Your task to perform on an android device: View the shopping cart on amazon.com. Search for "bose quietcomfort 35" on amazon.com, select the first entry, and add it to the cart. Image 0: 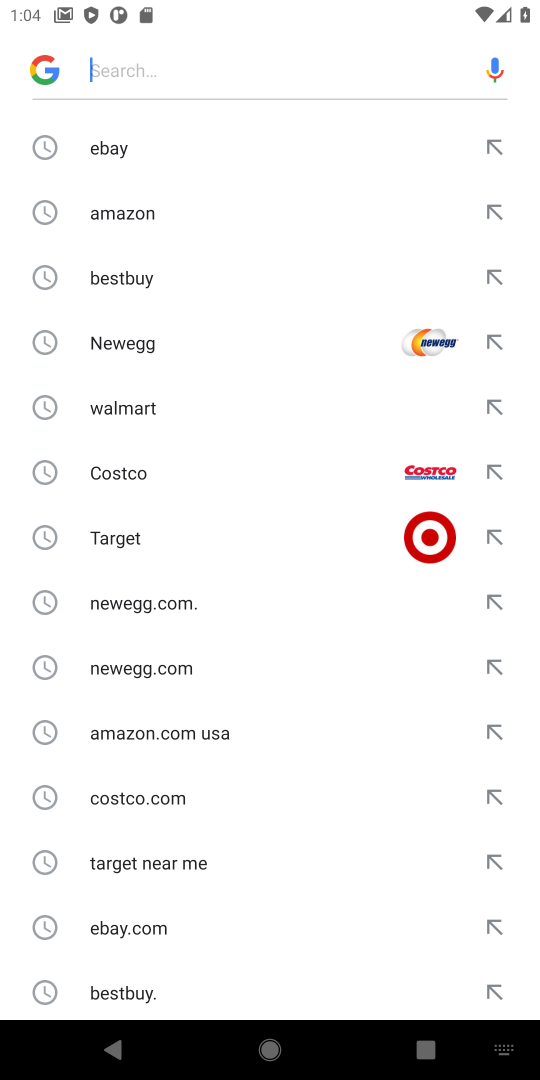
Step 0: click (91, 68)
Your task to perform on an android device: View the shopping cart on amazon.com. Search for "bose quietcomfort 35" on amazon.com, select the first entry, and add it to the cart. Image 1: 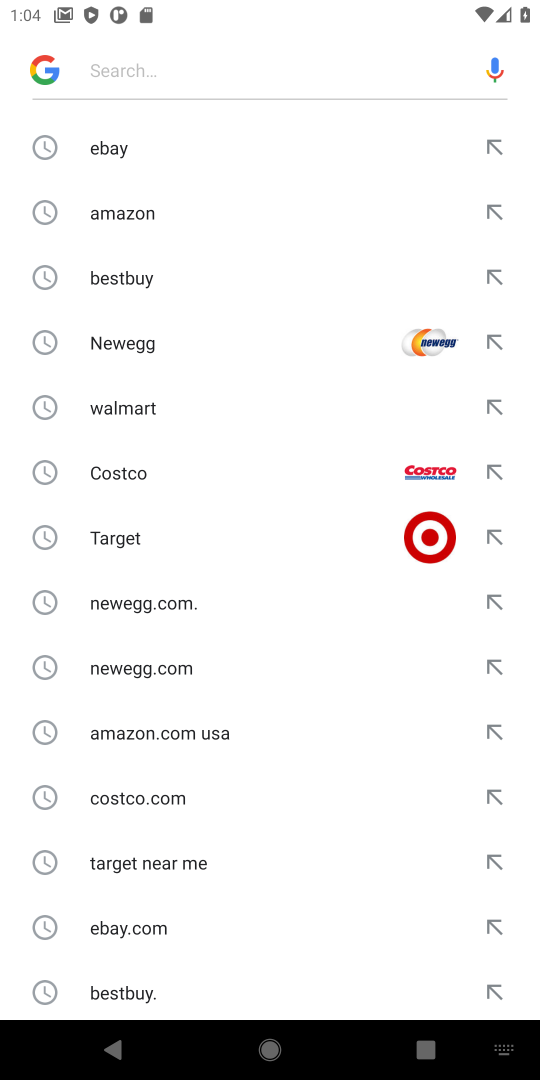
Step 1: type "amazon.com"
Your task to perform on an android device: View the shopping cart on amazon.com. Search for "bose quietcomfort 35" on amazon.com, select the first entry, and add it to the cart. Image 2: 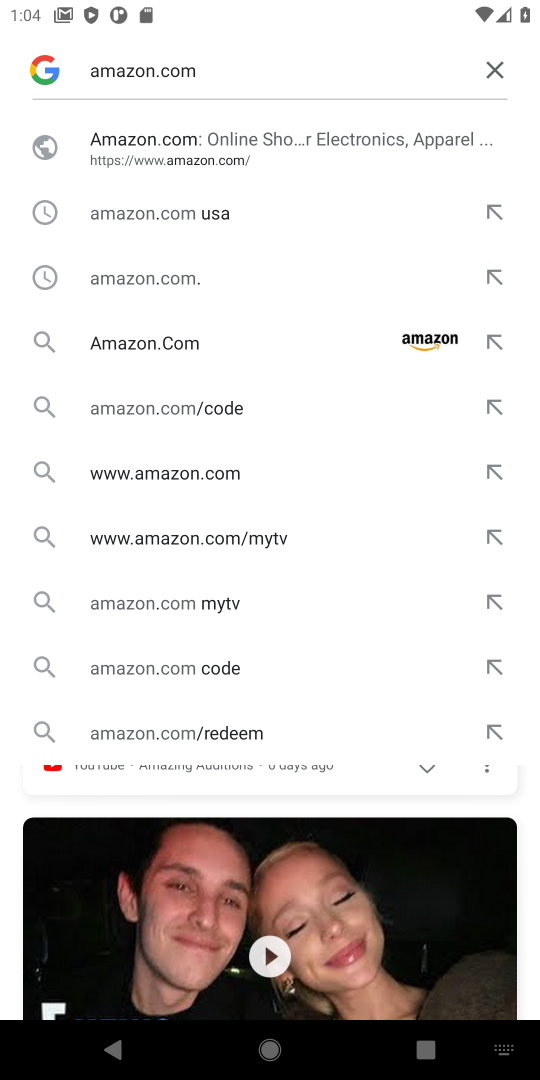
Step 2: click (181, 164)
Your task to perform on an android device: View the shopping cart on amazon.com. Search for "bose quietcomfort 35" on amazon.com, select the first entry, and add it to the cart. Image 3: 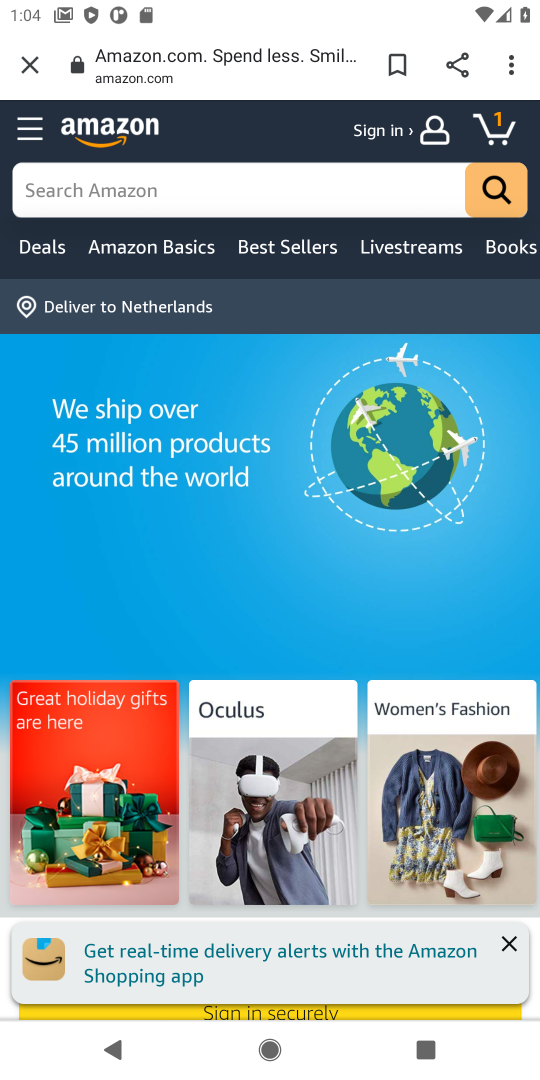
Step 3: click (501, 136)
Your task to perform on an android device: View the shopping cart on amazon.com. Search for "bose quietcomfort 35" on amazon.com, select the first entry, and add it to the cart. Image 4: 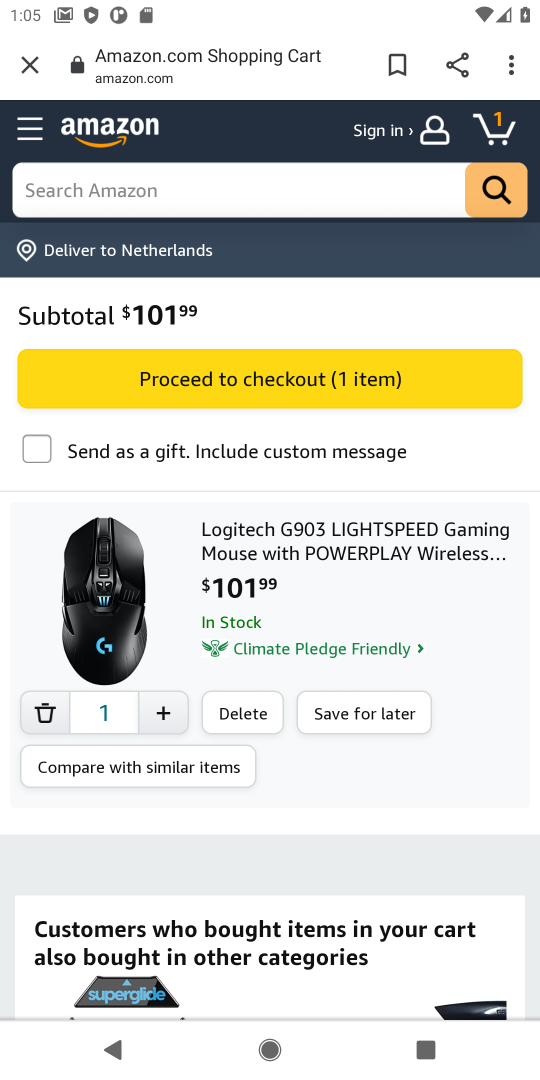
Step 4: click (67, 195)
Your task to perform on an android device: View the shopping cart on amazon.com. Search for "bose quietcomfort 35" on amazon.com, select the first entry, and add it to the cart. Image 5: 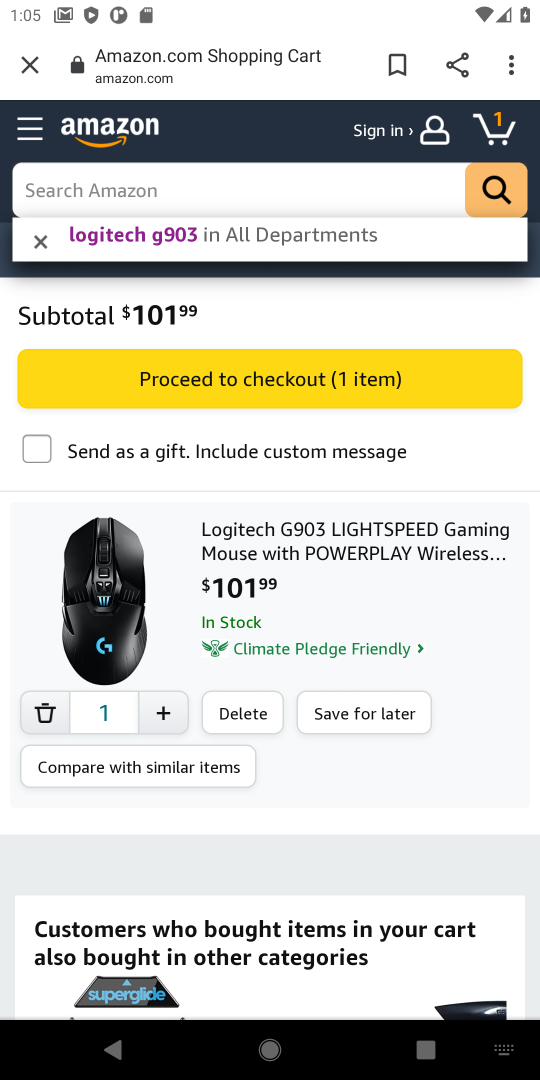
Step 5: type "bose quietcomfort 35"
Your task to perform on an android device: View the shopping cart on amazon.com. Search for "bose quietcomfort 35" on amazon.com, select the first entry, and add it to the cart. Image 6: 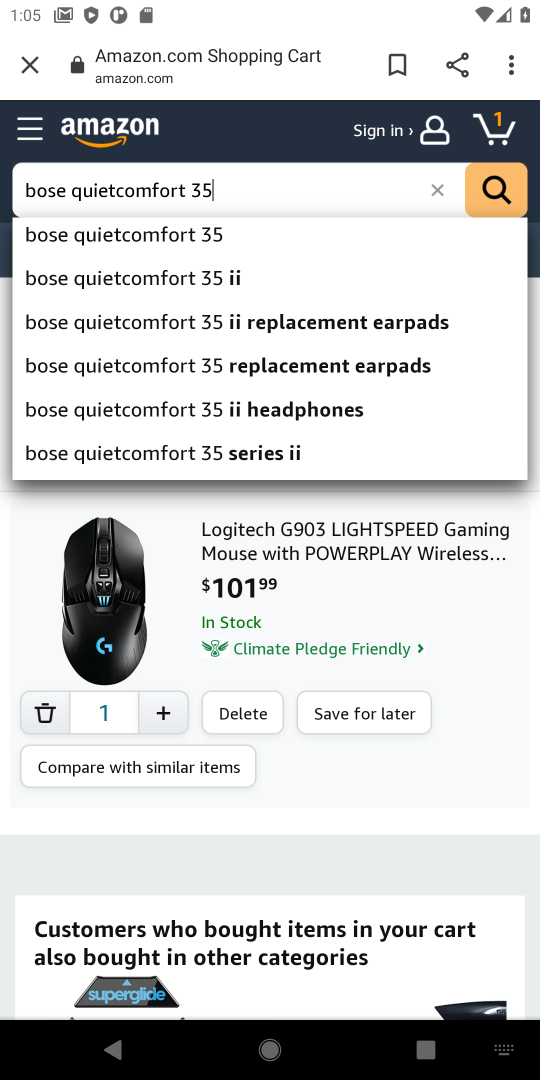
Step 6: click (131, 241)
Your task to perform on an android device: View the shopping cart on amazon.com. Search for "bose quietcomfort 35" on amazon.com, select the first entry, and add it to the cart. Image 7: 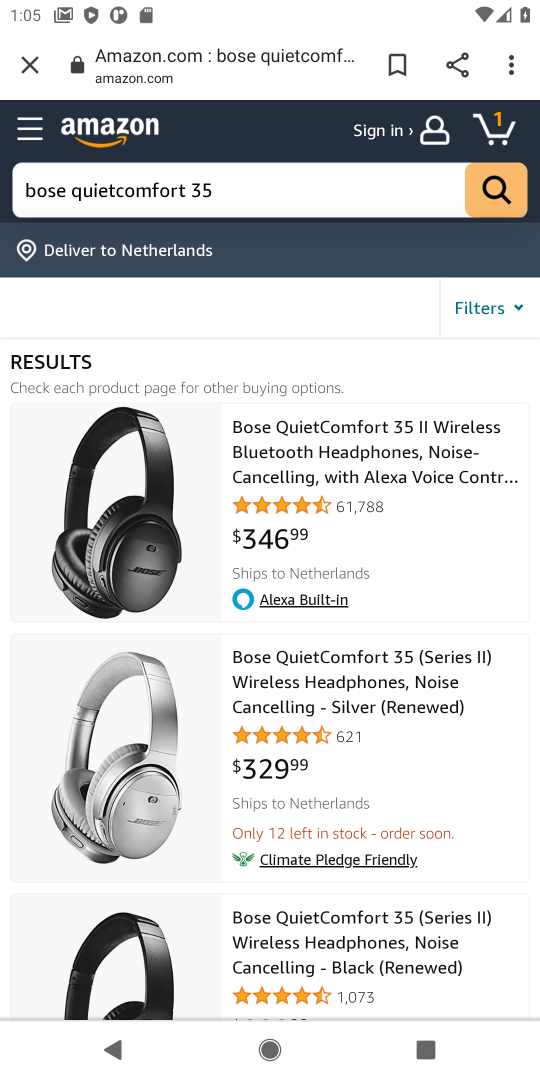
Step 7: click (268, 453)
Your task to perform on an android device: View the shopping cart on amazon.com. Search for "bose quietcomfort 35" on amazon.com, select the first entry, and add it to the cart. Image 8: 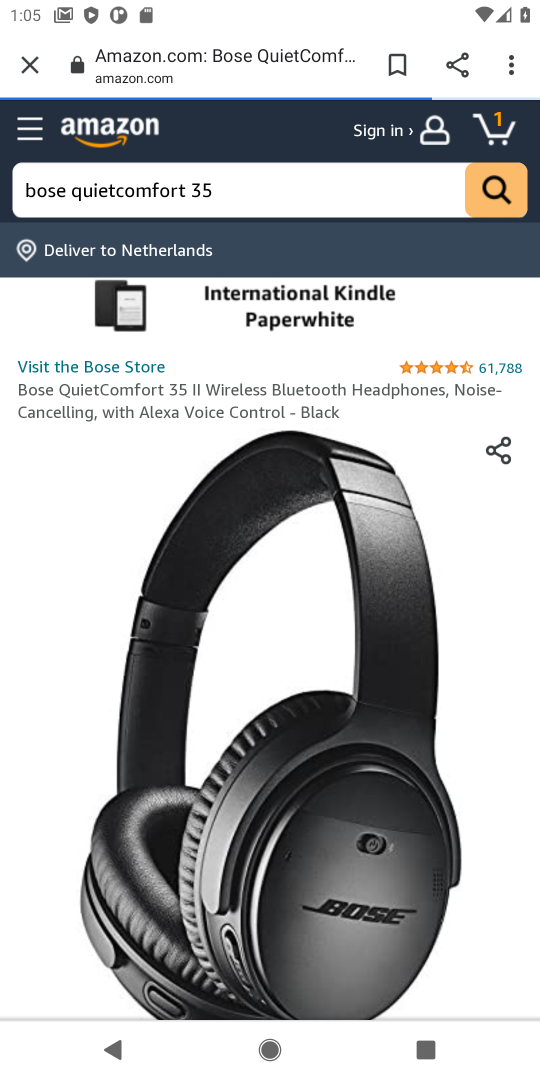
Step 8: drag from (263, 596) to (212, 311)
Your task to perform on an android device: View the shopping cart on amazon.com. Search for "bose quietcomfort 35" on amazon.com, select the first entry, and add it to the cart. Image 9: 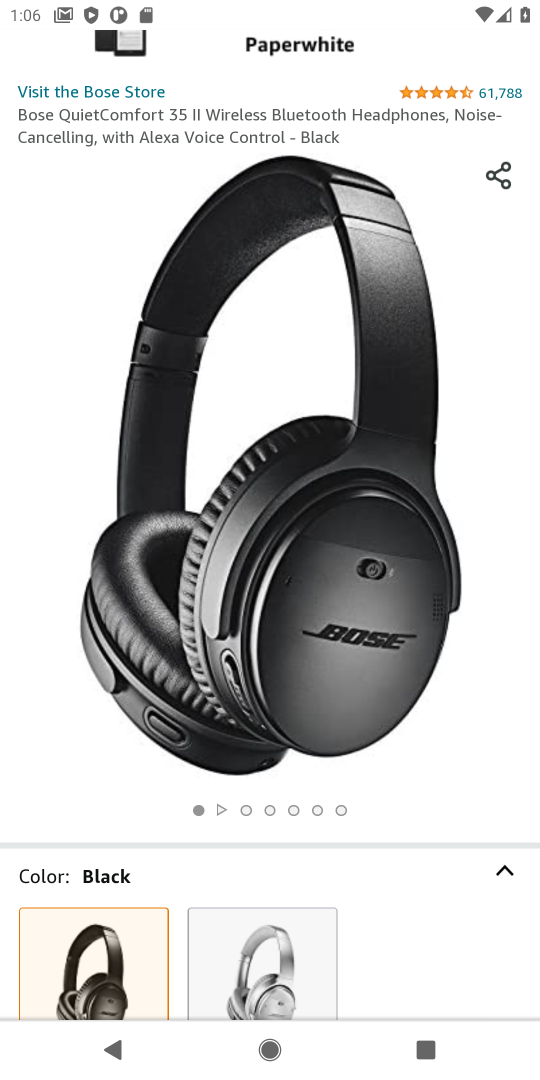
Step 9: drag from (376, 734) to (310, 250)
Your task to perform on an android device: View the shopping cart on amazon.com. Search for "bose quietcomfort 35" on amazon.com, select the first entry, and add it to the cart. Image 10: 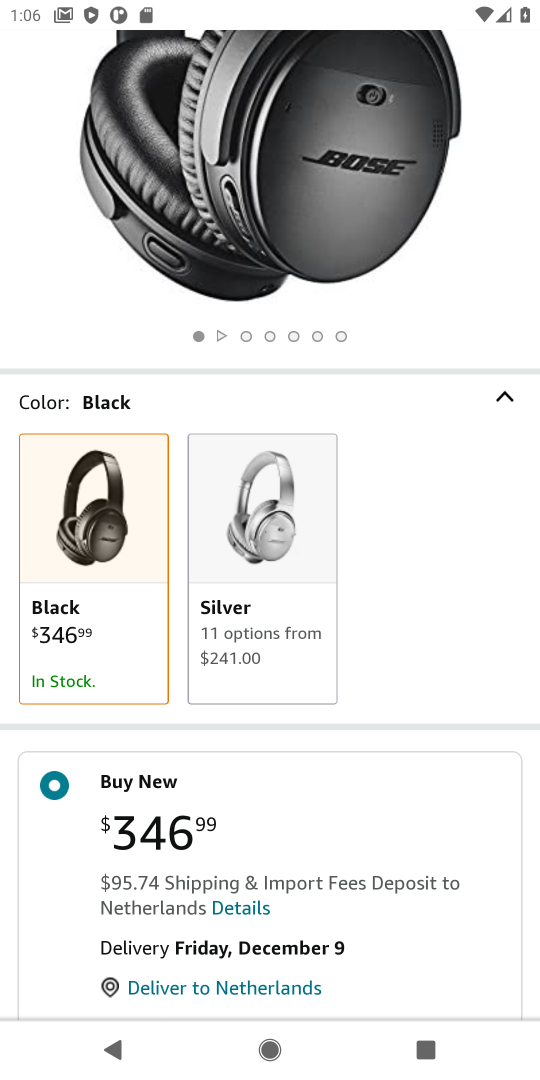
Step 10: drag from (396, 684) to (359, 282)
Your task to perform on an android device: View the shopping cart on amazon.com. Search for "bose quietcomfort 35" on amazon.com, select the first entry, and add it to the cart. Image 11: 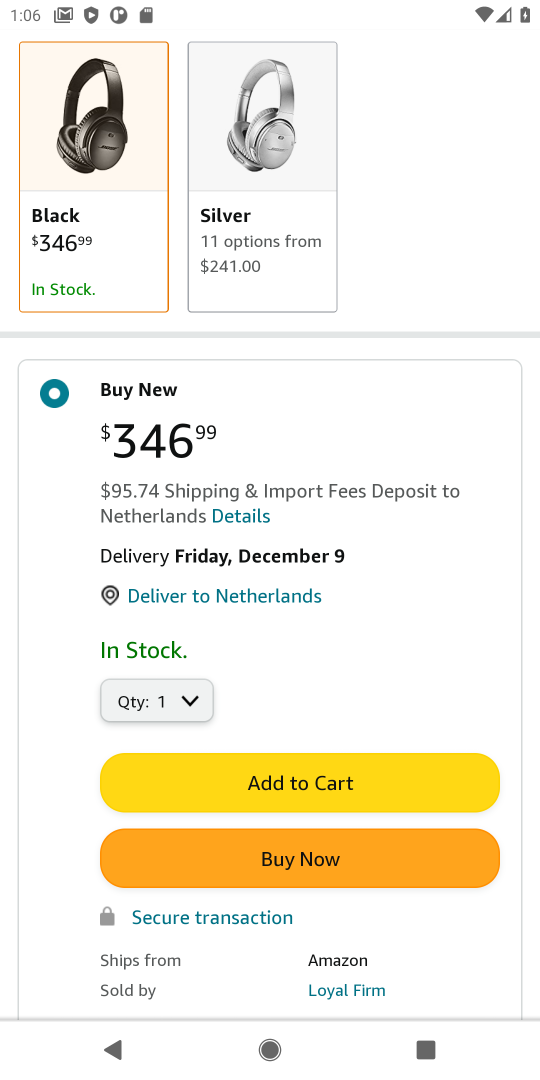
Step 11: click (308, 782)
Your task to perform on an android device: View the shopping cart on amazon.com. Search for "bose quietcomfort 35" on amazon.com, select the first entry, and add it to the cart. Image 12: 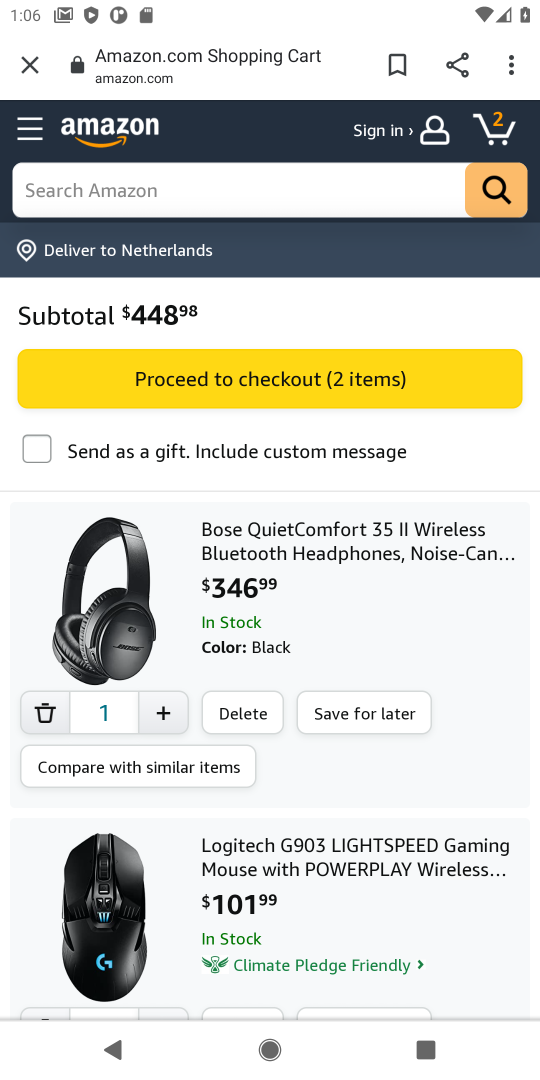
Step 12: task complete